Your task to perform on an android device: Go to display settings Image 0: 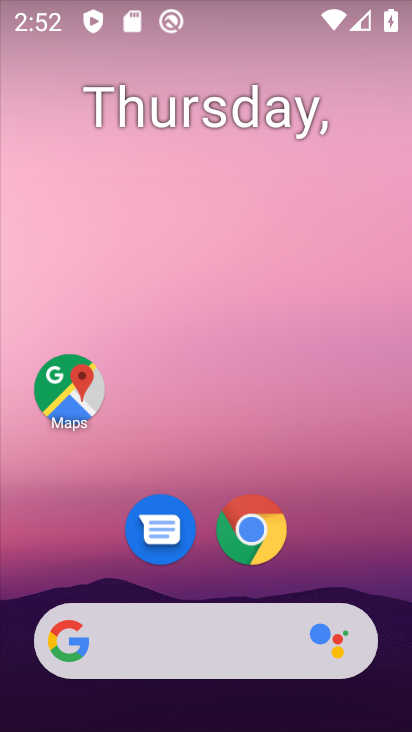
Step 0: drag from (209, 585) to (250, 120)
Your task to perform on an android device: Go to display settings Image 1: 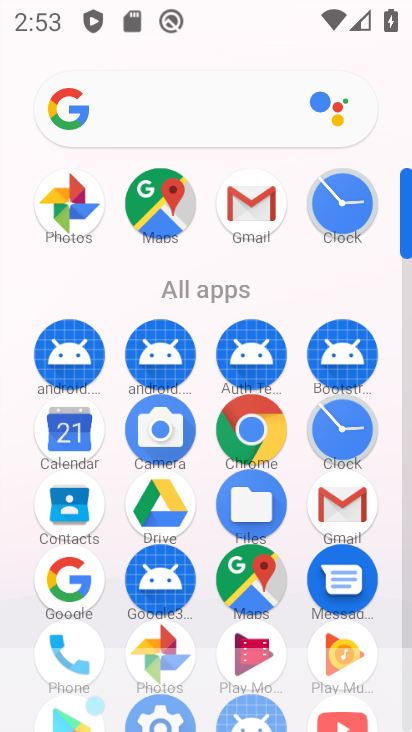
Step 1: click (156, 717)
Your task to perform on an android device: Go to display settings Image 2: 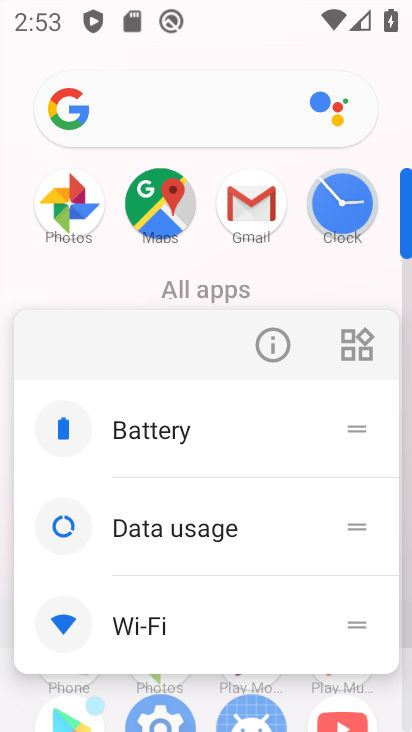
Step 2: click (276, 337)
Your task to perform on an android device: Go to display settings Image 3: 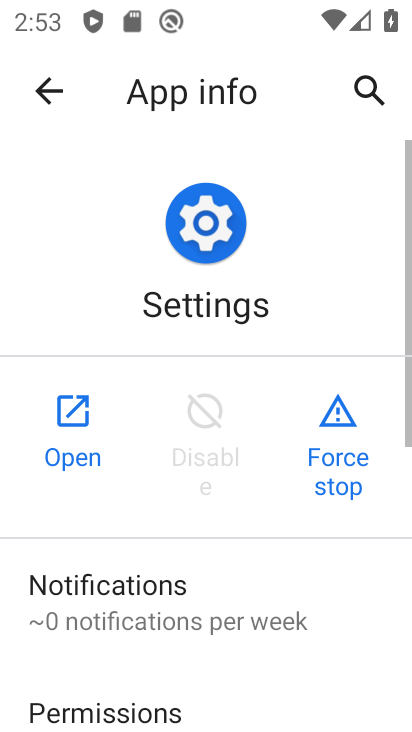
Step 3: click (72, 428)
Your task to perform on an android device: Go to display settings Image 4: 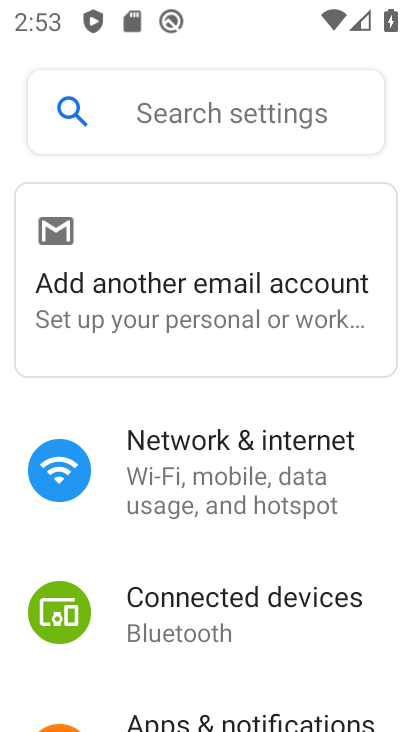
Step 4: drag from (197, 665) to (274, 275)
Your task to perform on an android device: Go to display settings Image 5: 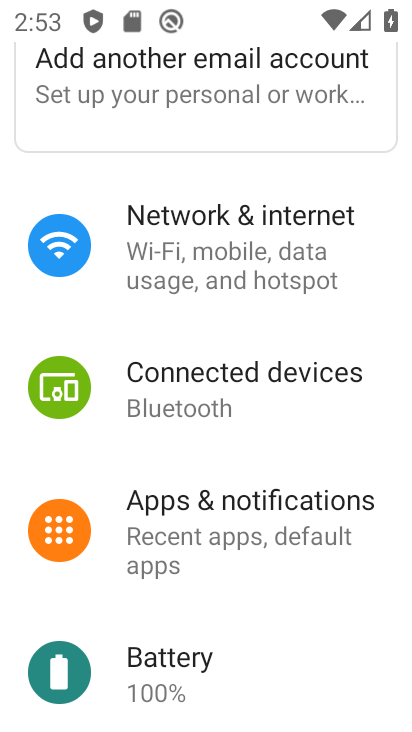
Step 5: drag from (209, 634) to (268, 322)
Your task to perform on an android device: Go to display settings Image 6: 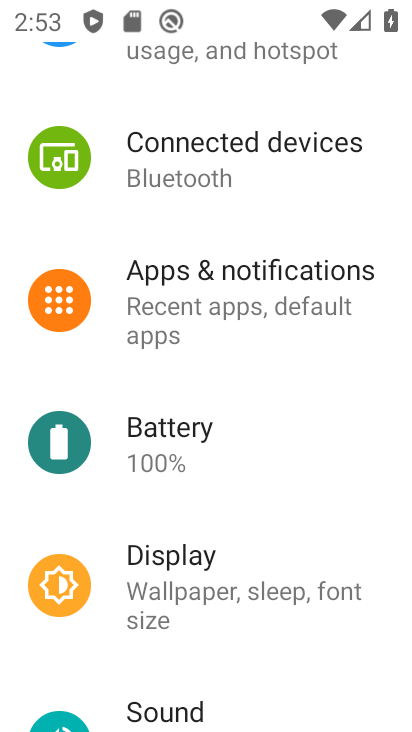
Step 6: click (214, 573)
Your task to perform on an android device: Go to display settings Image 7: 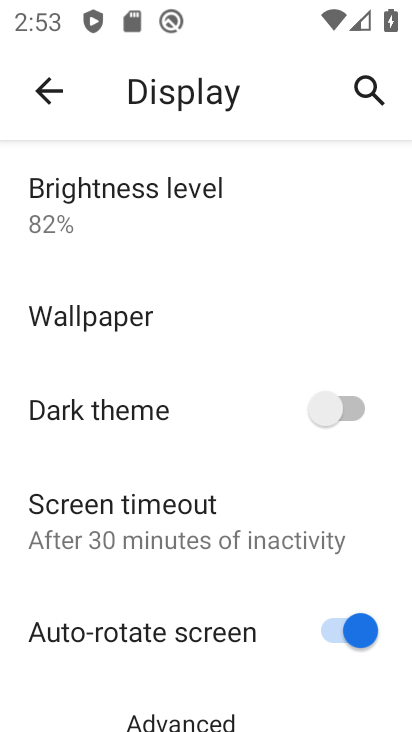
Step 7: task complete